Your task to perform on an android device: check data usage Image 0: 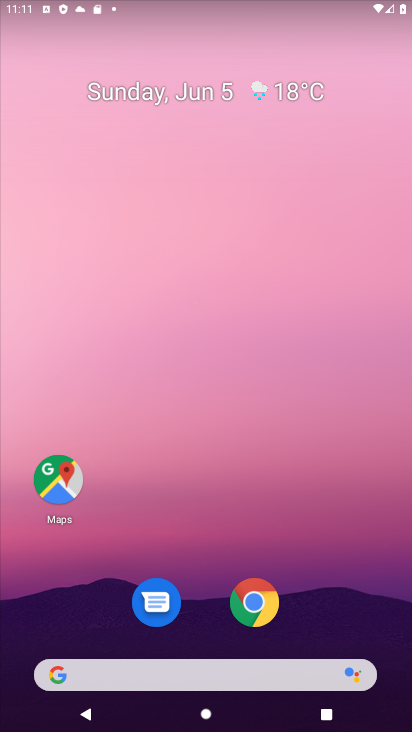
Step 0: task complete